Your task to perform on an android device: toggle notifications settings in the gmail app Image 0: 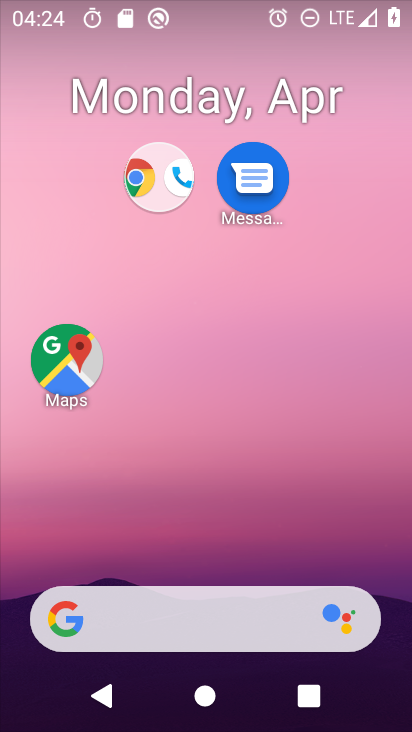
Step 0: task complete